Your task to perform on an android device: What's the weather going to be this weekend? Image 0: 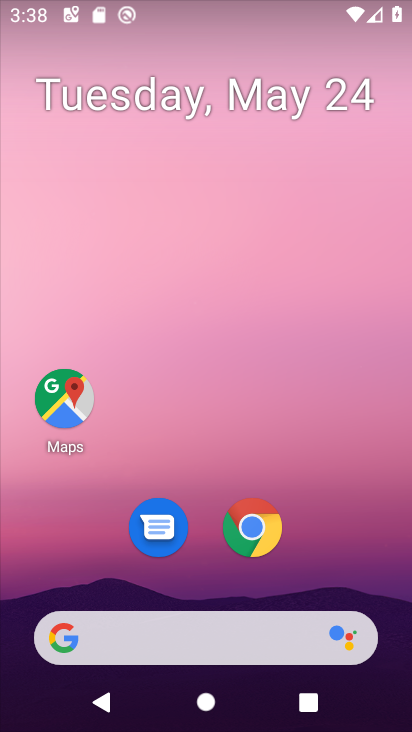
Step 0: click (107, 639)
Your task to perform on an android device: What's the weather going to be this weekend? Image 1: 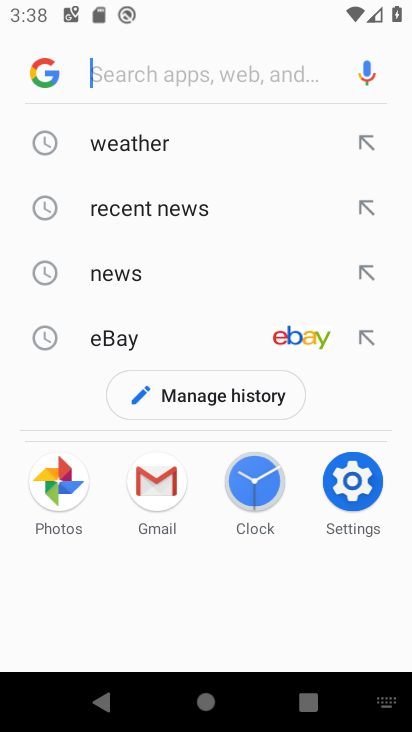
Step 1: click (134, 151)
Your task to perform on an android device: What's the weather going to be this weekend? Image 2: 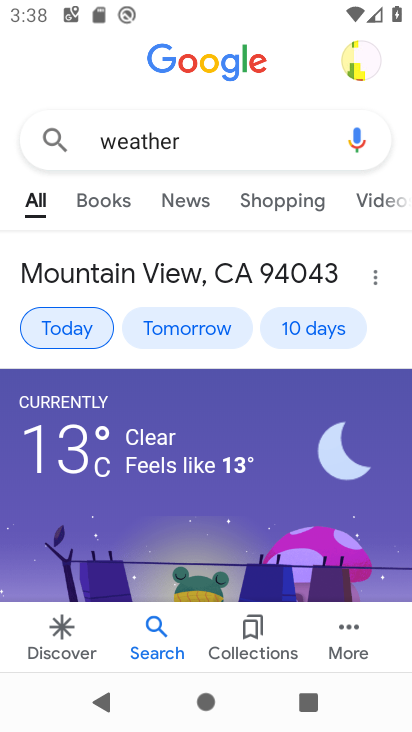
Step 2: click (332, 334)
Your task to perform on an android device: What's the weather going to be this weekend? Image 3: 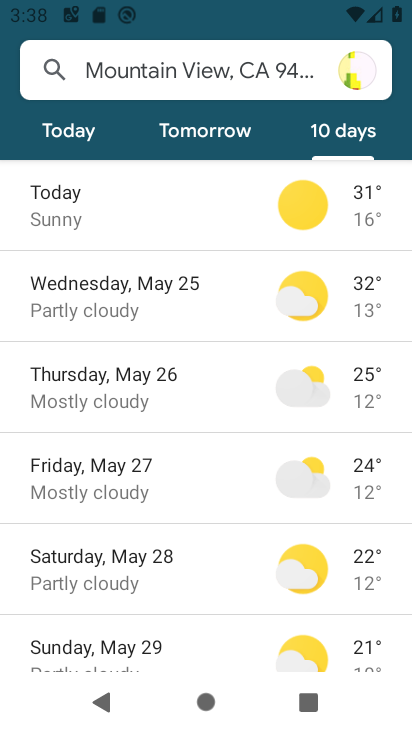
Step 3: task complete